Your task to perform on an android device: Open Google Maps and go to "Timeline" Image 0: 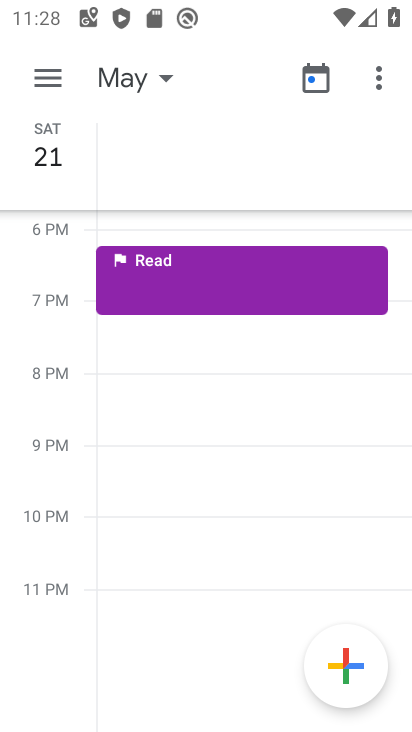
Step 0: press home button
Your task to perform on an android device: Open Google Maps and go to "Timeline" Image 1: 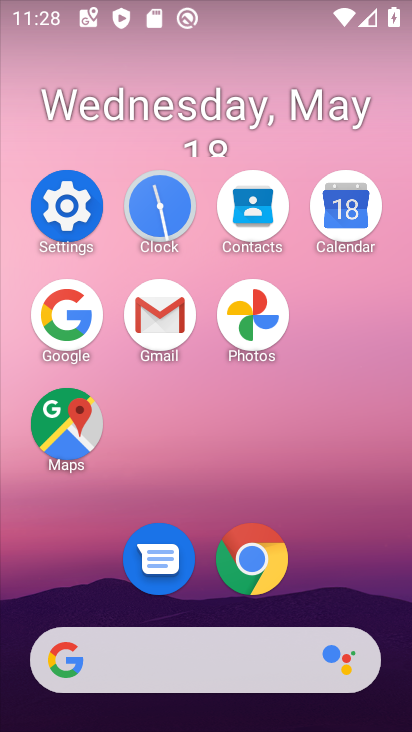
Step 1: click (73, 432)
Your task to perform on an android device: Open Google Maps and go to "Timeline" Image 2: 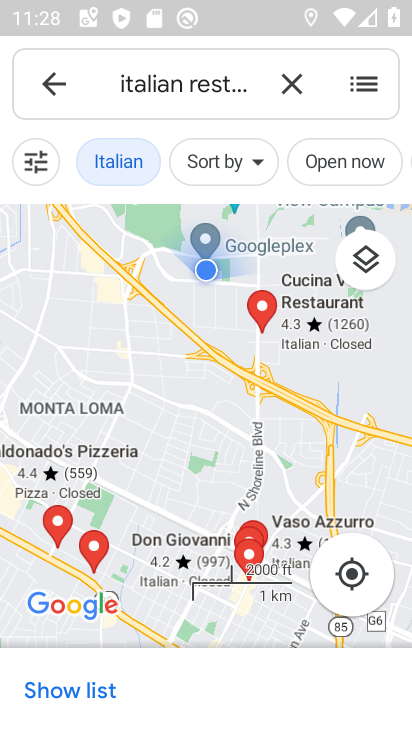
Step 2: click (48, 81)
Your task to perform on an android device: Open Google Maps and go to "Timeline" Image 3: 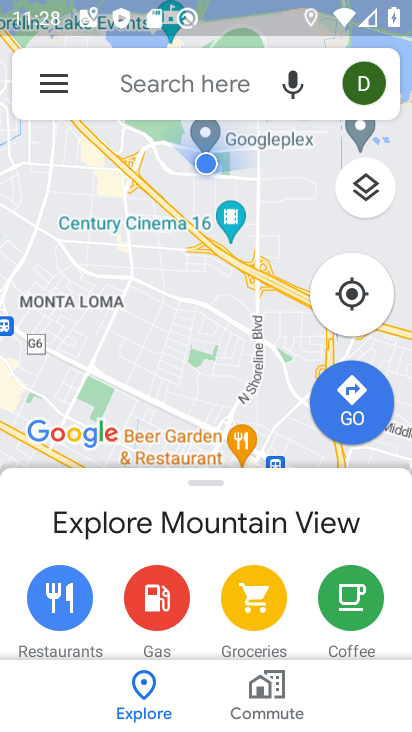
Step 3: click (50, 82)
Your task to perform on an android device: Open Google Maps and go to "Timeline" Image 4: 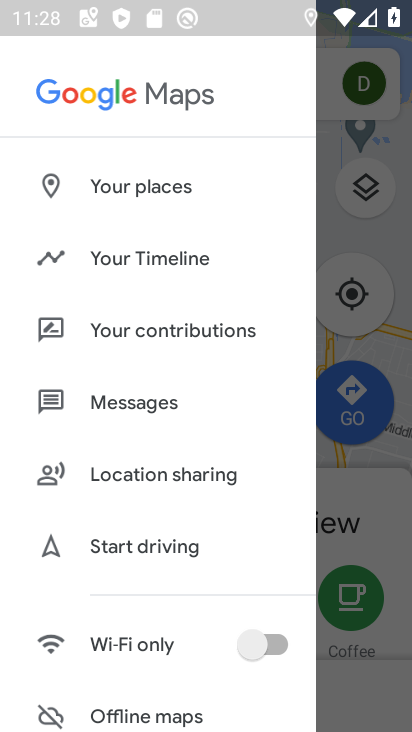
Step 4: click (81, 258)
Your task to perform on an android device: Open Google Maps and go to "Timeline" Image 5: 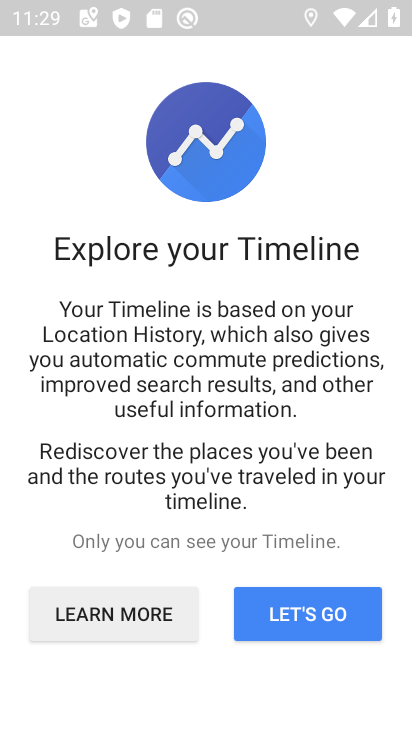
Step 5: click (369, 622)
Your task to perform on an android device: Open Google Maps and go to "Timeline" Image 6: 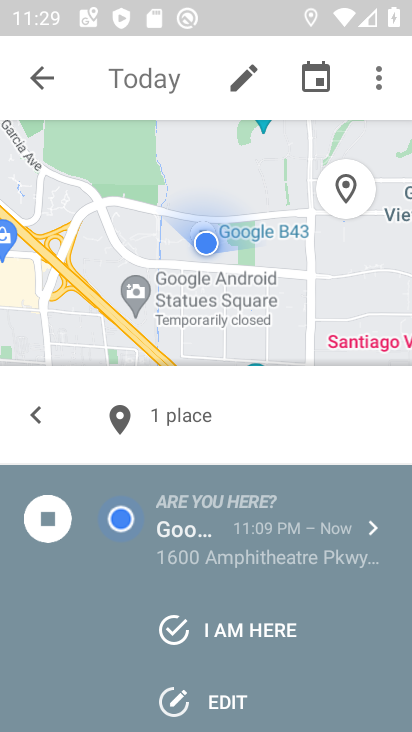
Step 6: task complete